Your task to perform on an android device: Open Google Chrome Image 0: 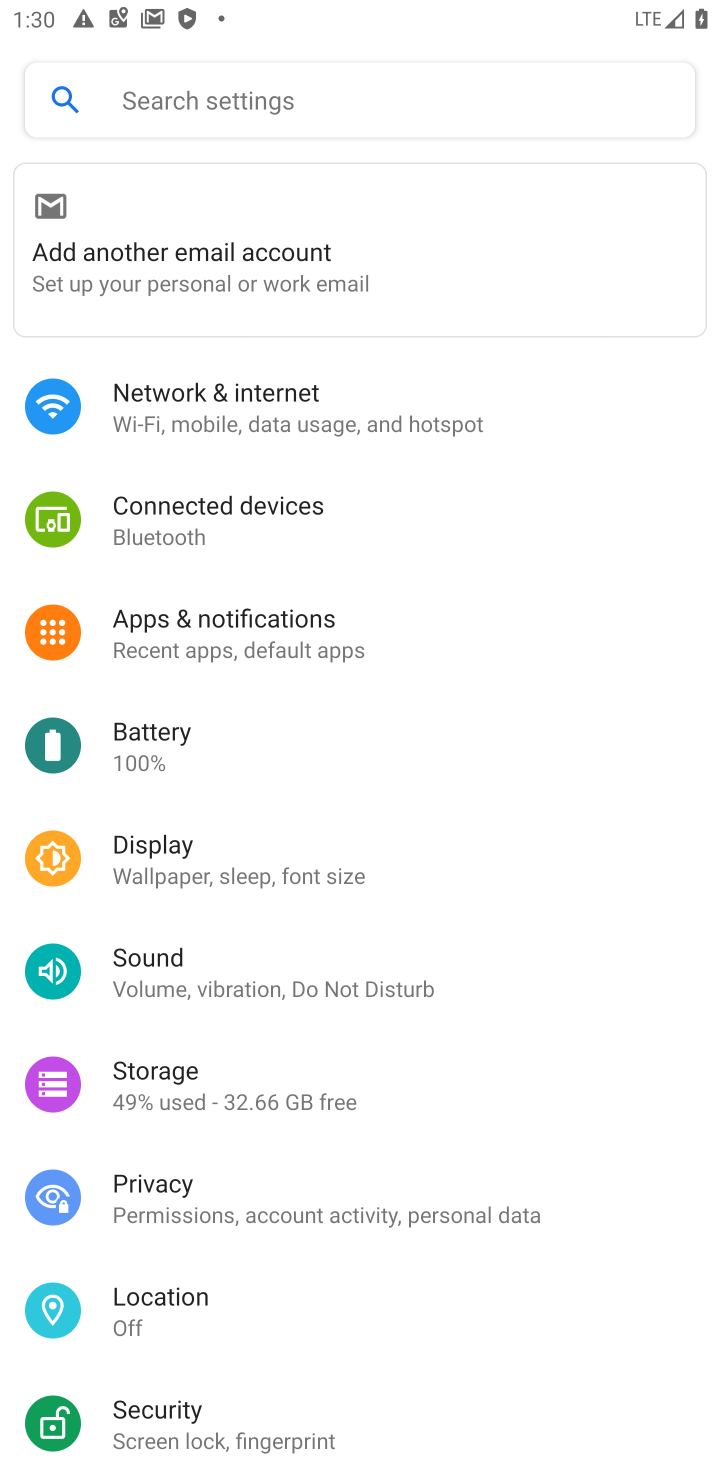
Step 0: press home button
Your task to perform on an android device: Open Google Chrome Image 1: 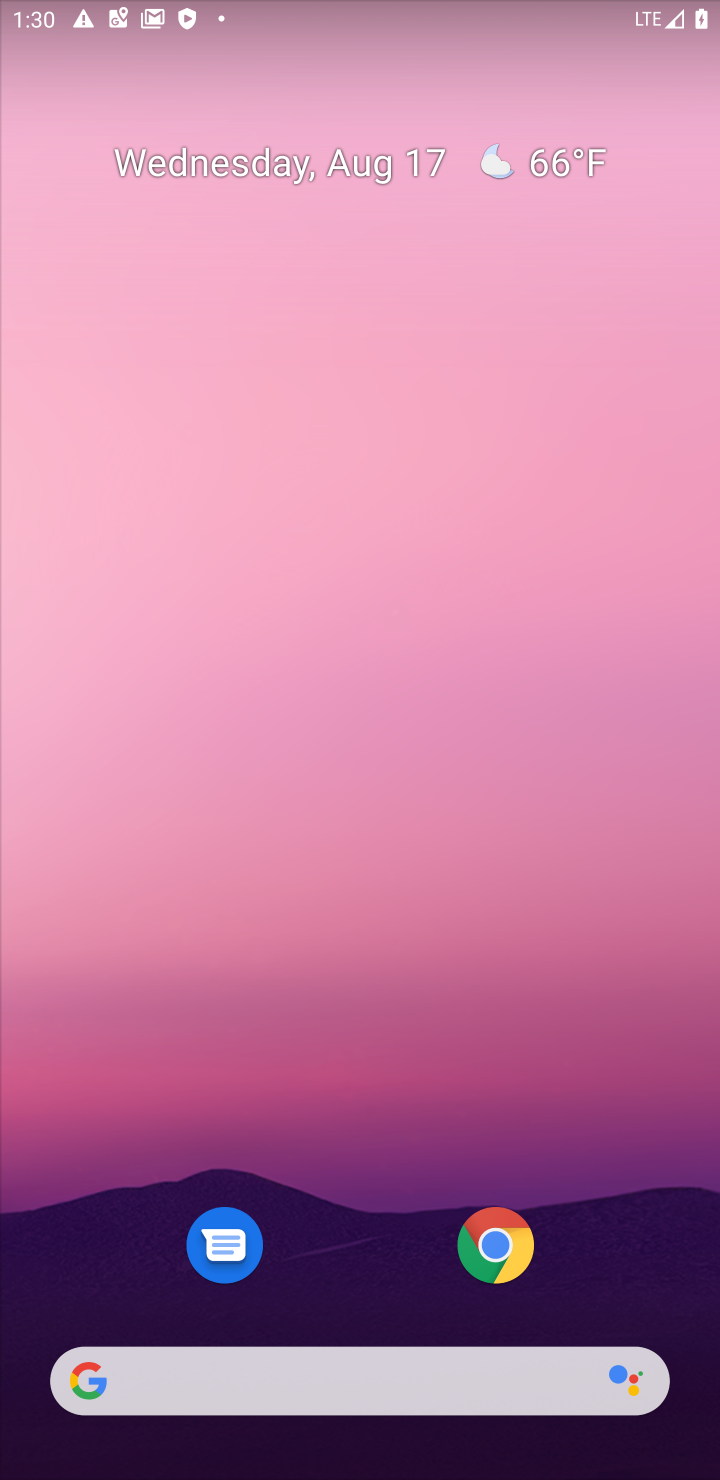
Step 1: click (480, 1254)
Your task to perform on an android device: Open Google Chrome Image 2: 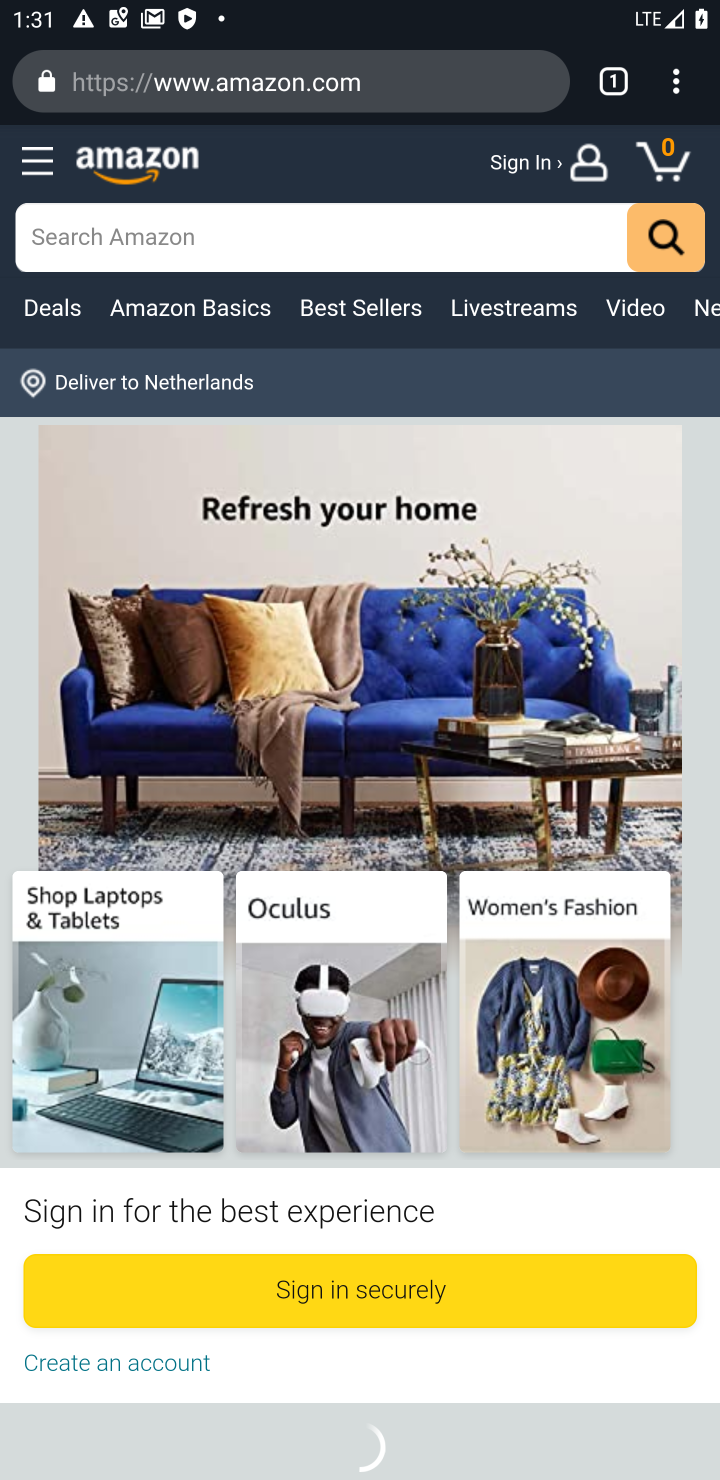
Step 2: task complete